Your task to perform on an android device: Show me popular videos on Youtube Image 0: 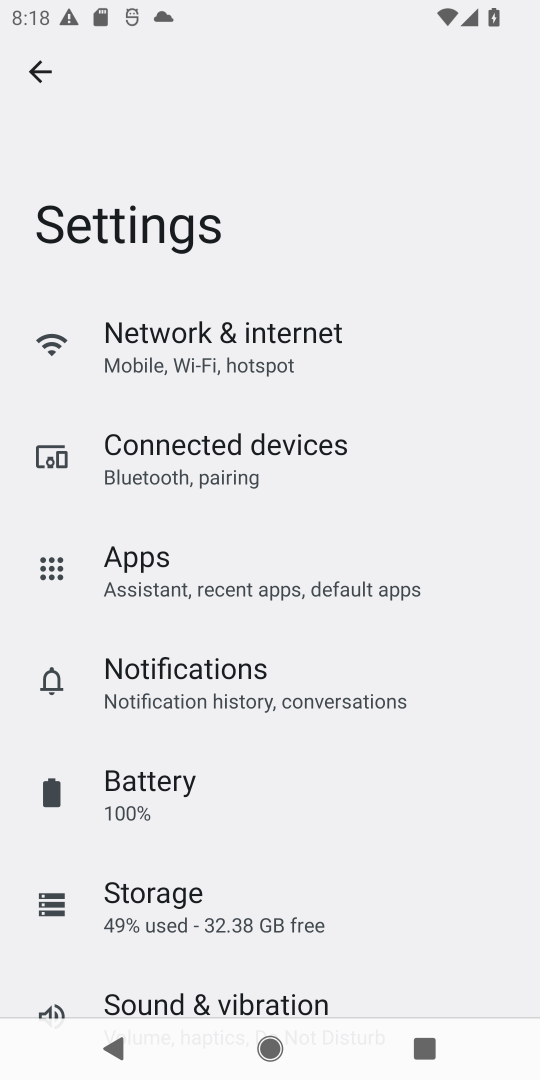
Step 0: press home button
Your task to perform on an android device: Show me popular videos on Youtube Image 1: 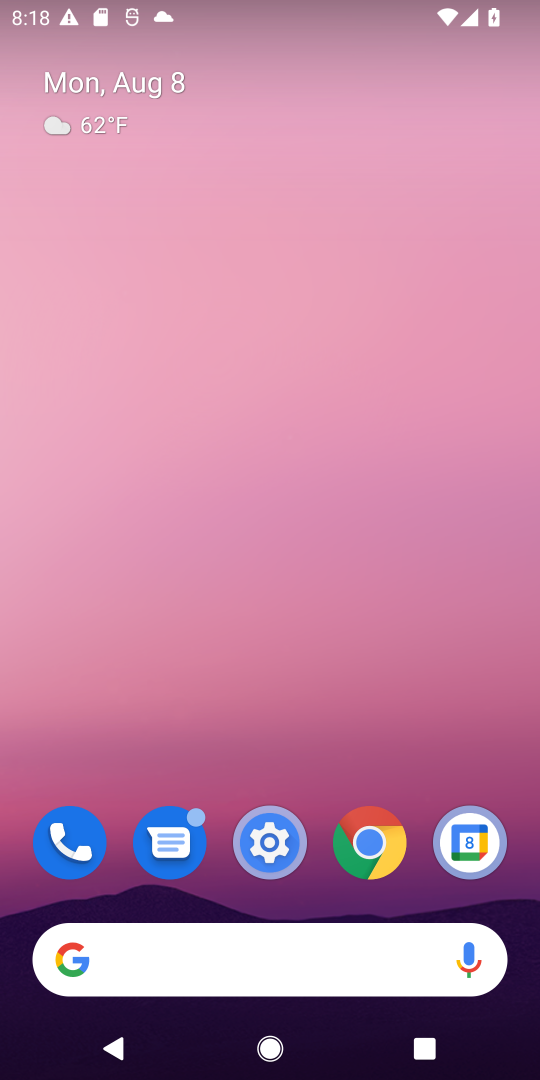
Step 1: drag from (308, 711) to (303, 27)
Your task to perform on an android device: Show me popular videos on Youtube Image 2: 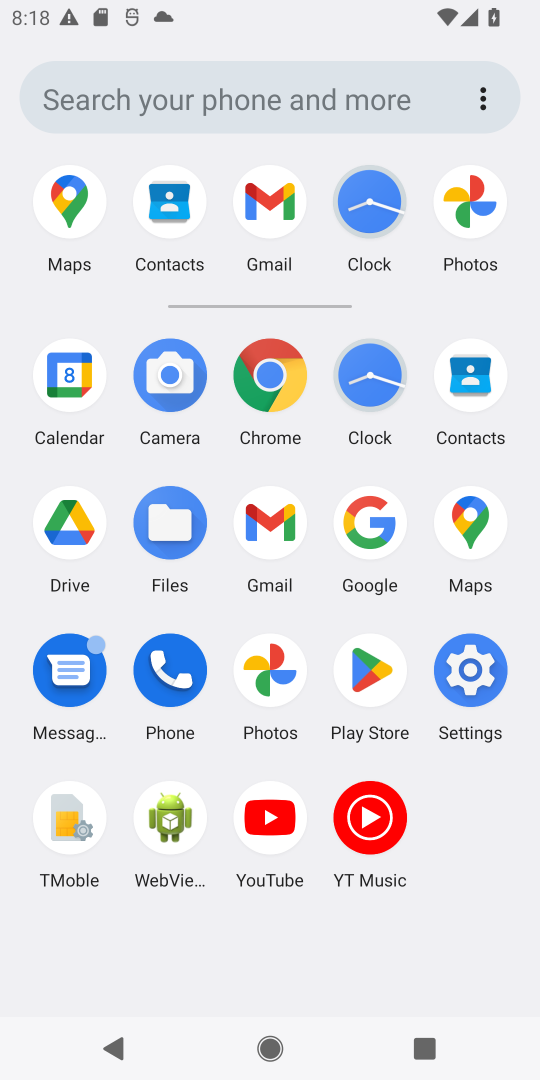
Step 2: click (258, 833)
Your task to perform on an android device: Show me popular videos on Youtube Image 3: 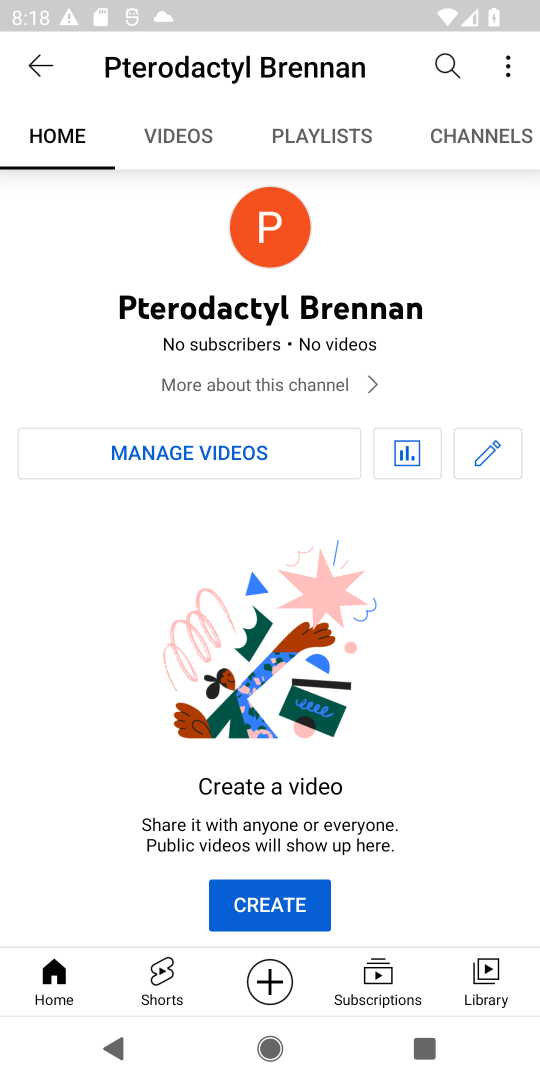
Step 3: click (44, 56)
Your task to perform on an android device: Show me popular videos on Youtube Image 4: 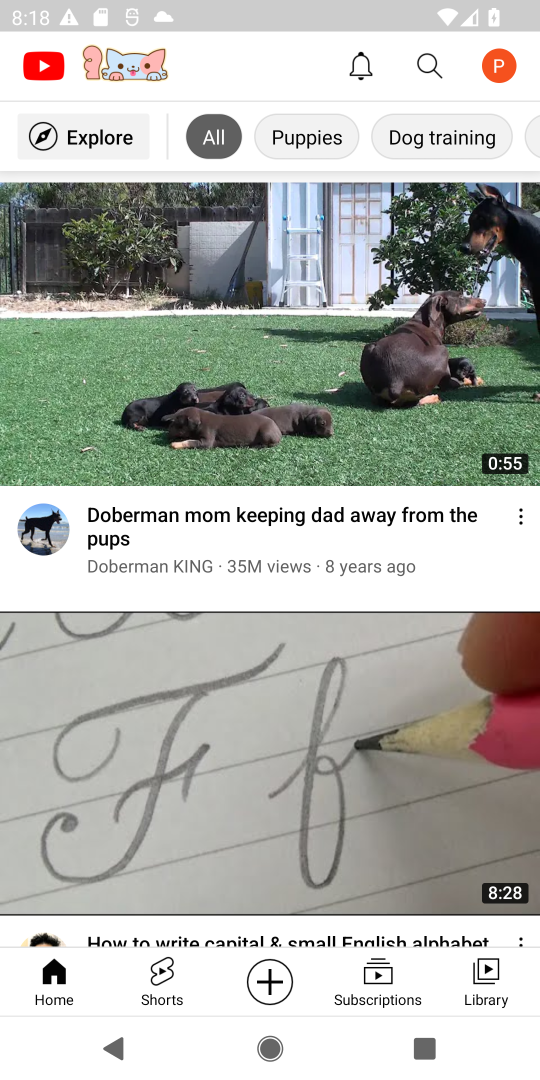
Step 4: click (427, 64)
Your task to perform on an android device: Show me popular videos on Youtube Image 5: 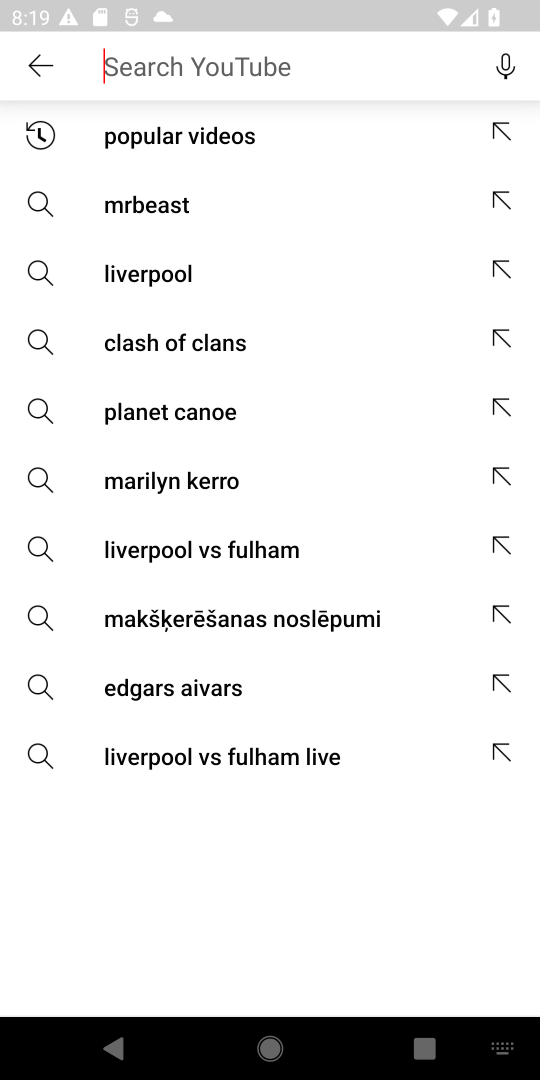
Step 5: click (251, 125)
Your task to perform on an android device: Show me popular videos on Youtube Image 6: 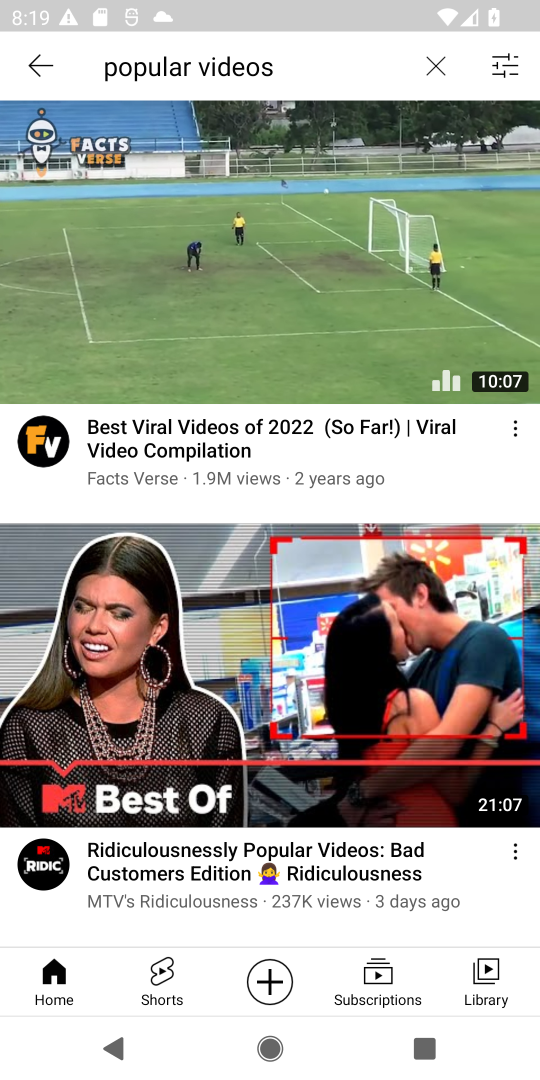
Step 6: task complete